Your task to perform on an android device: Search for 24"x36" picture frame on Home Depot. Image 0: 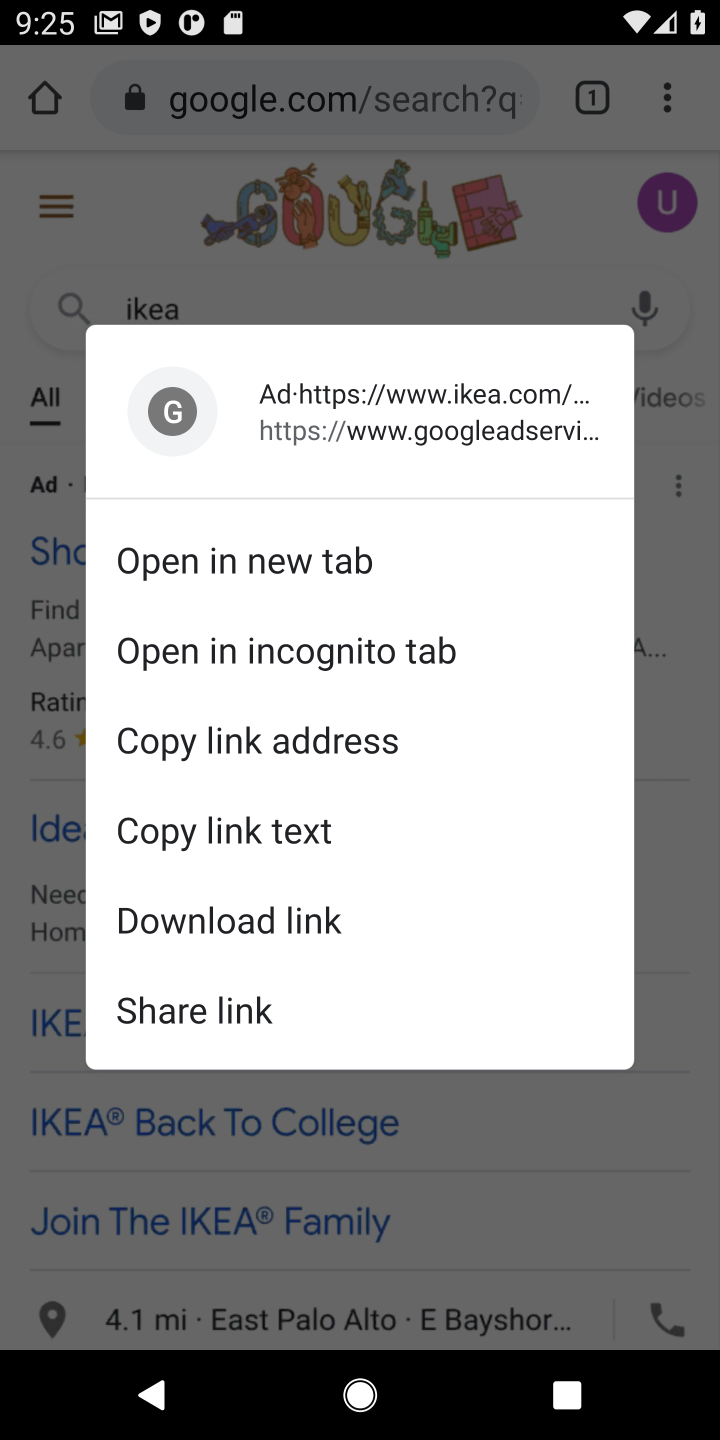
Step 0: press home button
Your task to perform on an android device: Search for 24"x36" picture frame on Home Depot. Image 1: 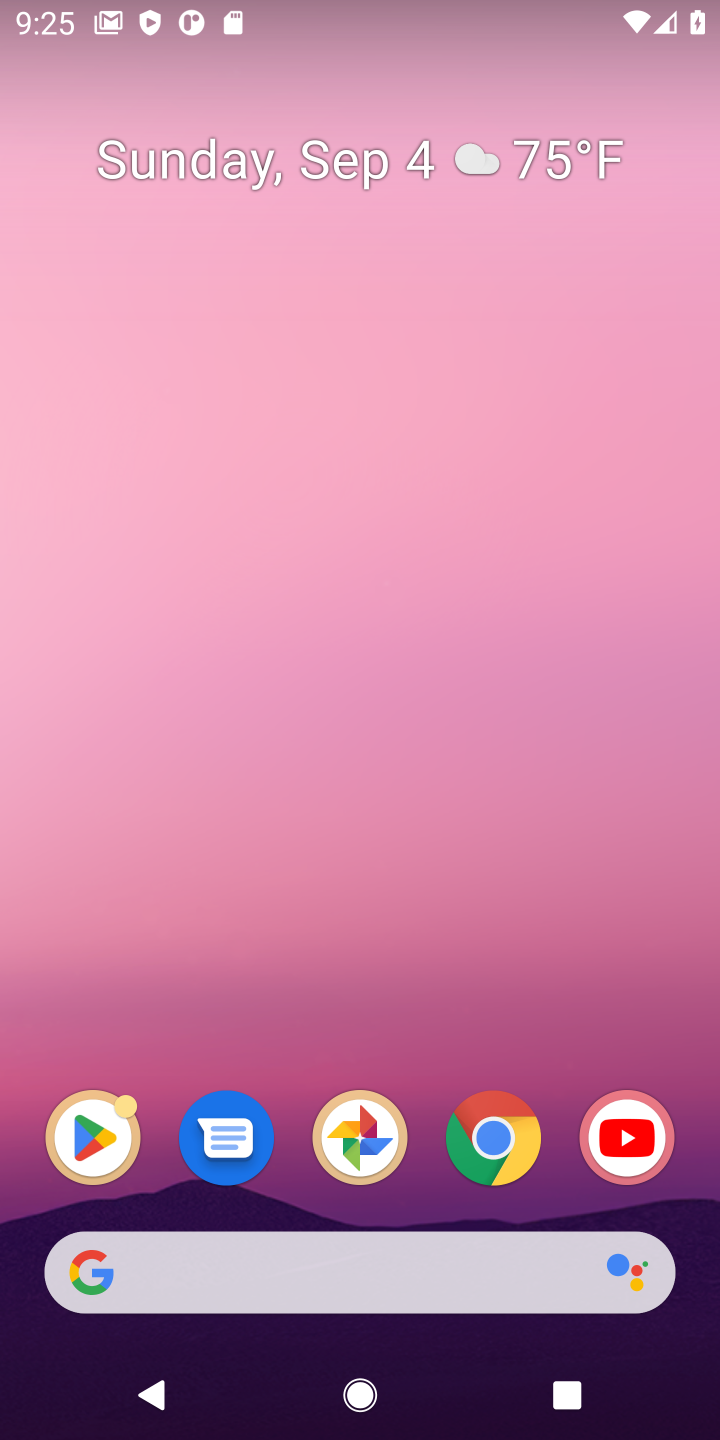
Step 1: click (498, 1137)
Your task to perform on an android device: Search for 24"x36" picture frame on Home Depot. Image 2: 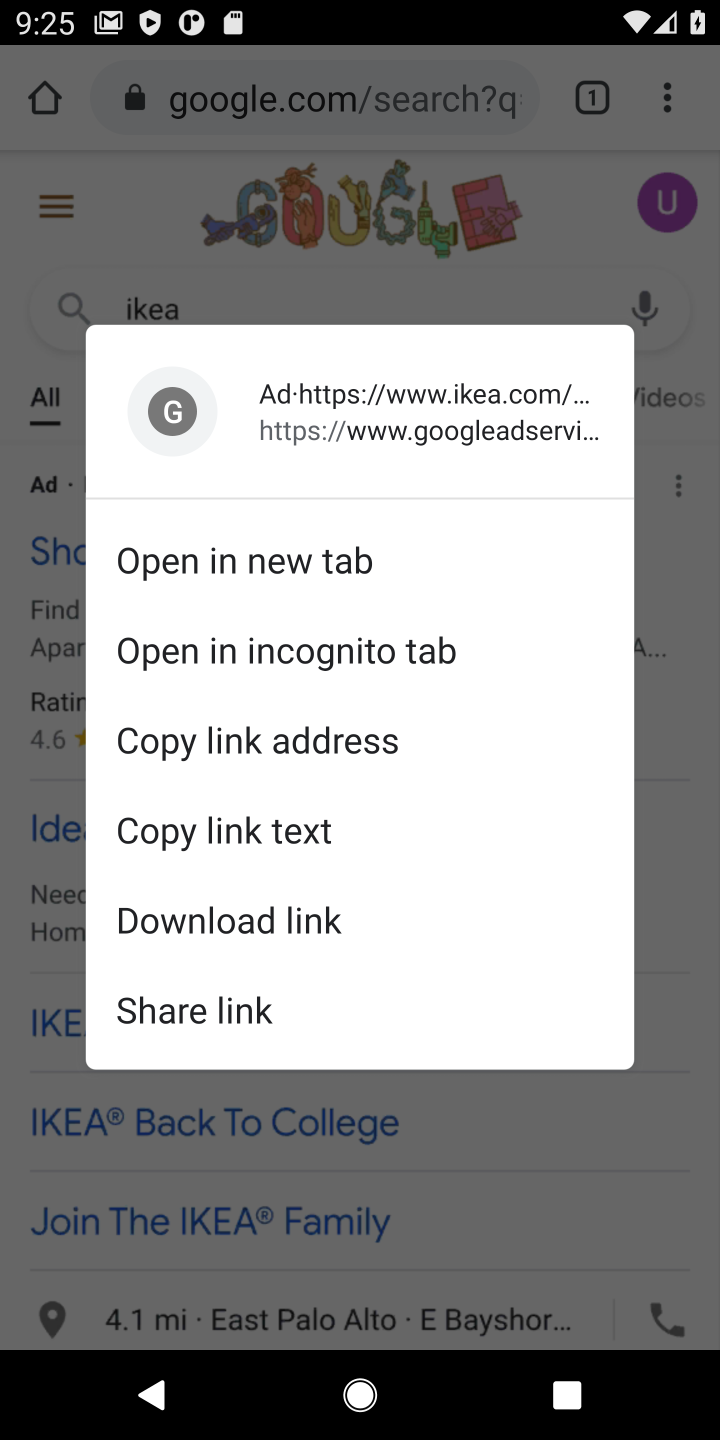
Step 2: press back button
Your task to perform on an android device: Search for 24"x36" picture frame on Home Depot. Image 3: 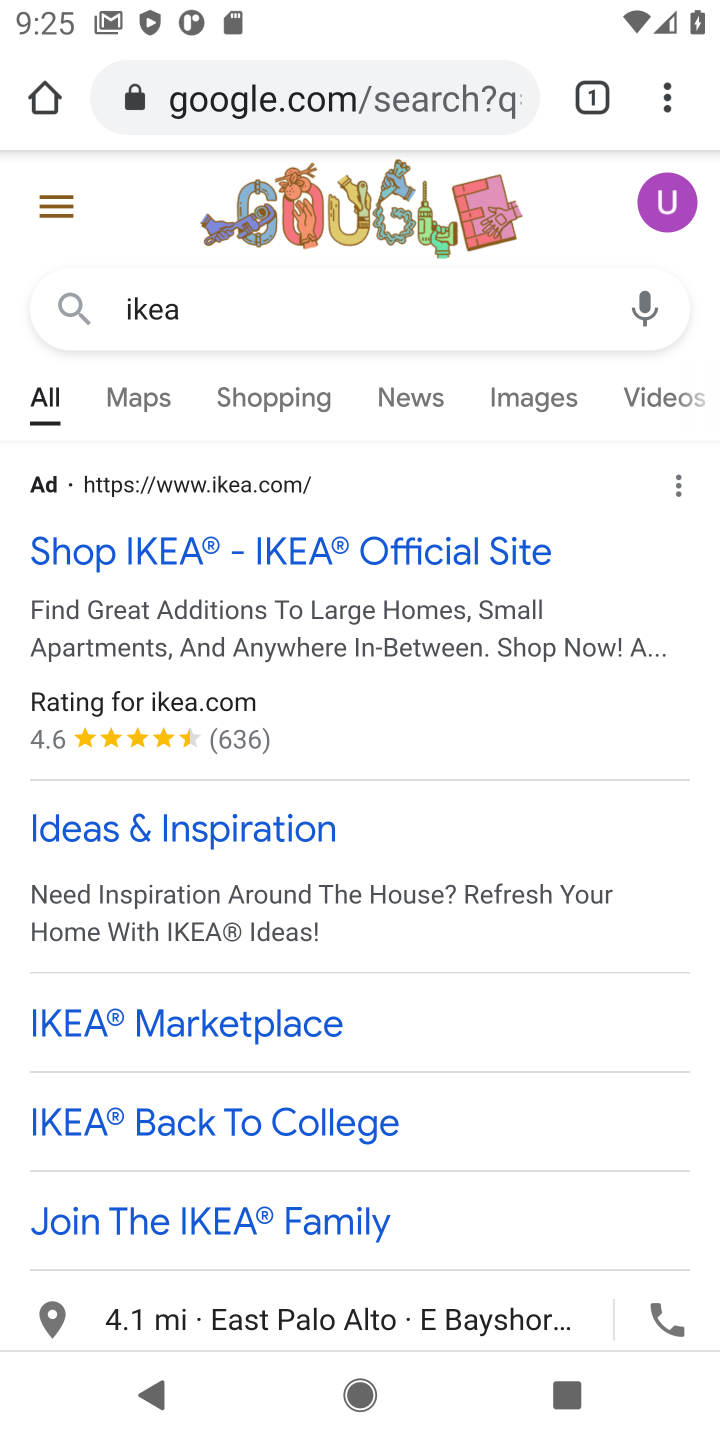
Step 3: click (385, 101)
Your task to perform on an android device: Search for 24"x36" picture frame on Home Depot. Image 4: 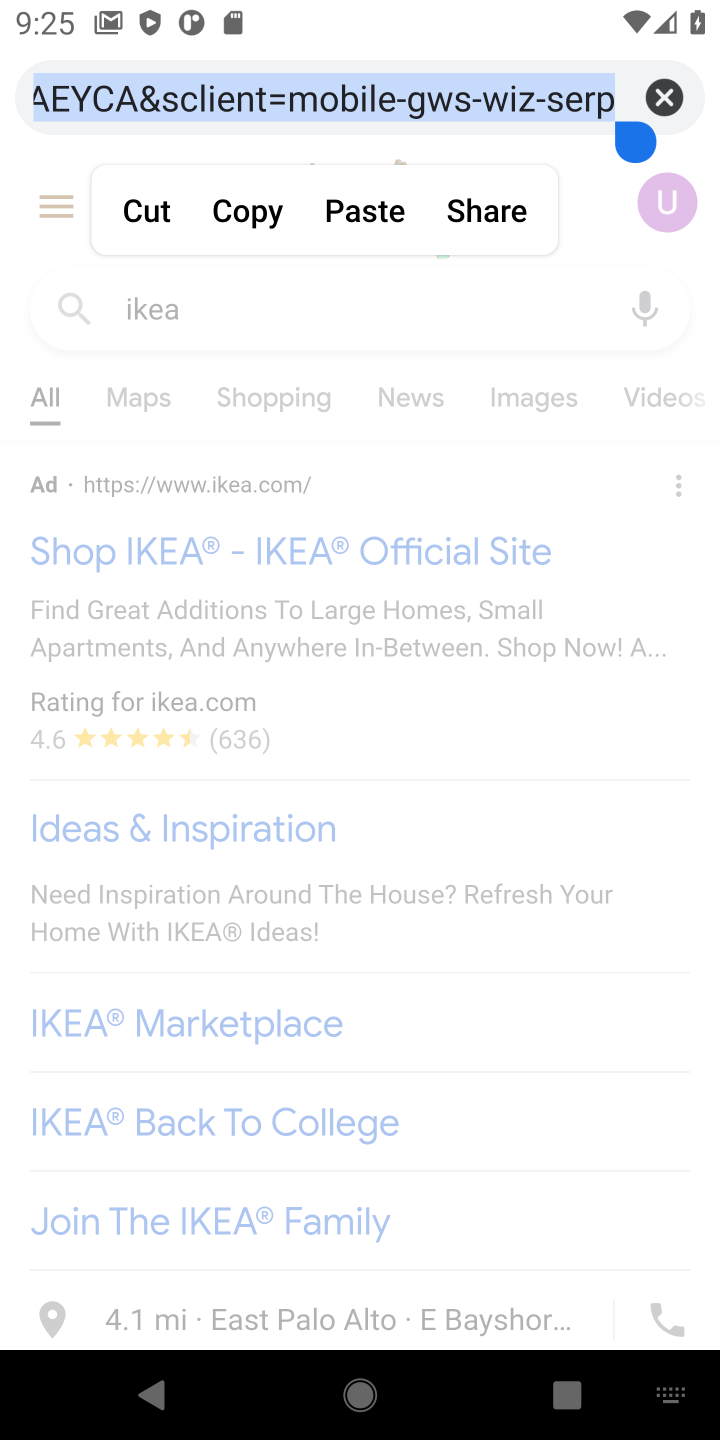
Step 4: type "24"x36" picture frame on Home Depot"
Your task to perform on an android device: Search for 24"x36" picture frame on Home Depot. Image 5: 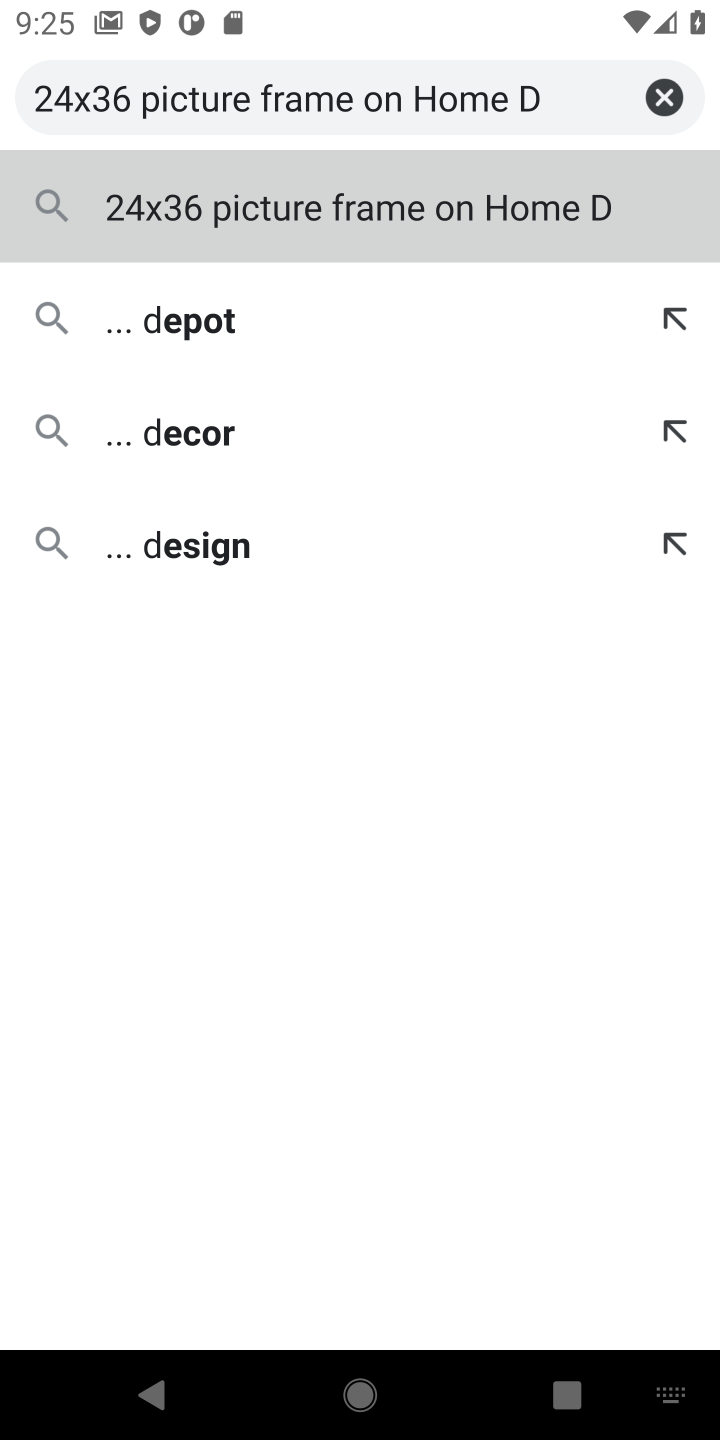
Step 5: type "24"x36" picture frame on Home Depot"
Your task to perform on an android device: Search for 24"x36" picture frame on Home Depot. Image 6: 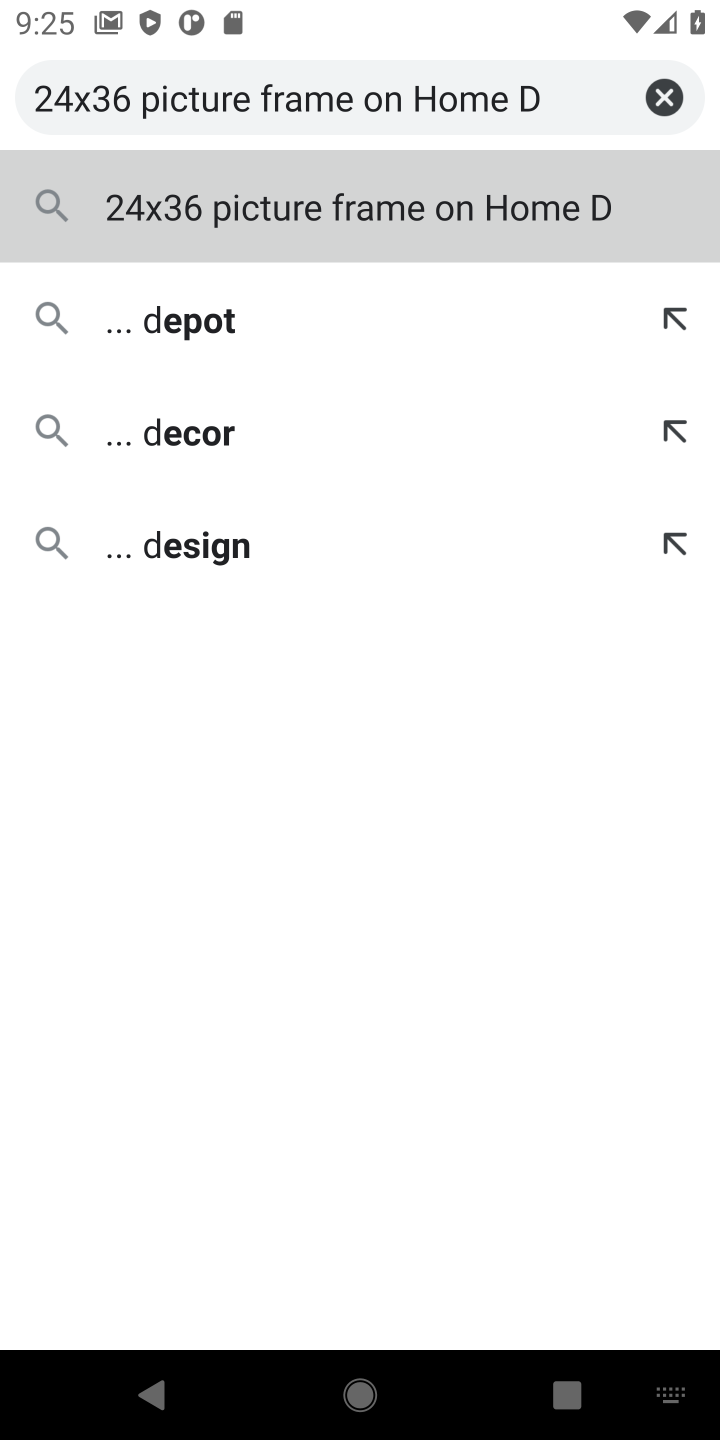
Step 6: click (499, 244)
Your task to perform on an android device: Search for 24"x36" picture frame on Home Depot. Image 7: 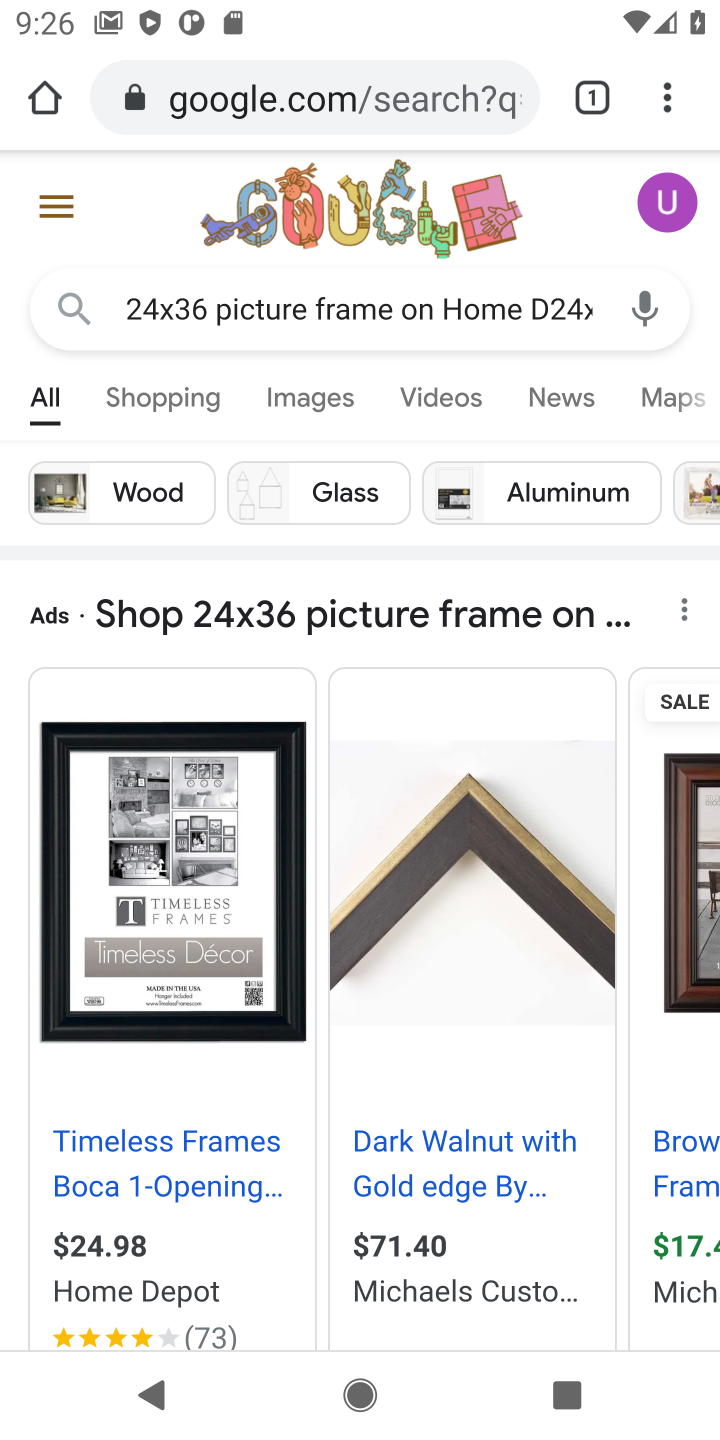
Step 7: drag from (362, 331) to (372, 261)
Your task to perform on an android device: Search for 24"x36" picture frame on Home Depot. Image 8: 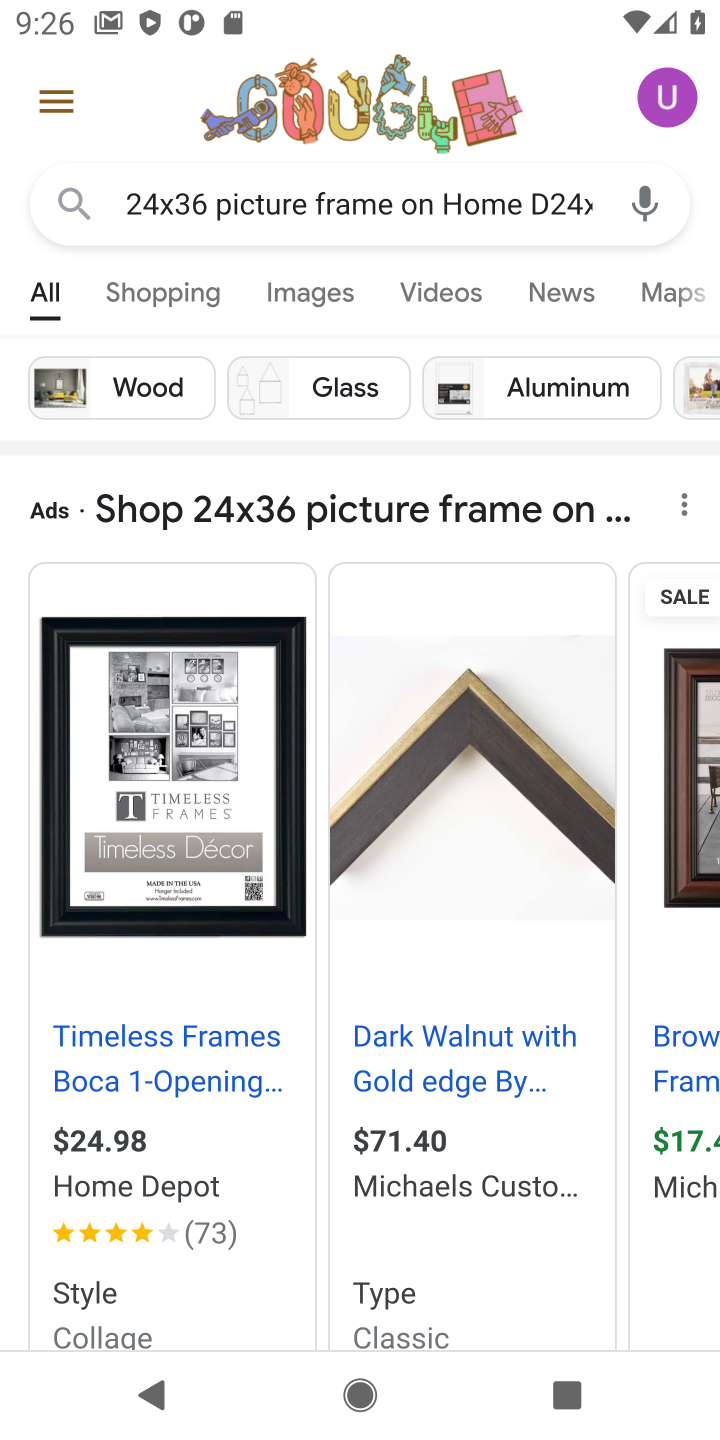
Step 8: drag from (321, 1299) to (290, 824)
Your task to perform on an android device: Search for 24"x36" picture frame on Home Depot. Image 9: 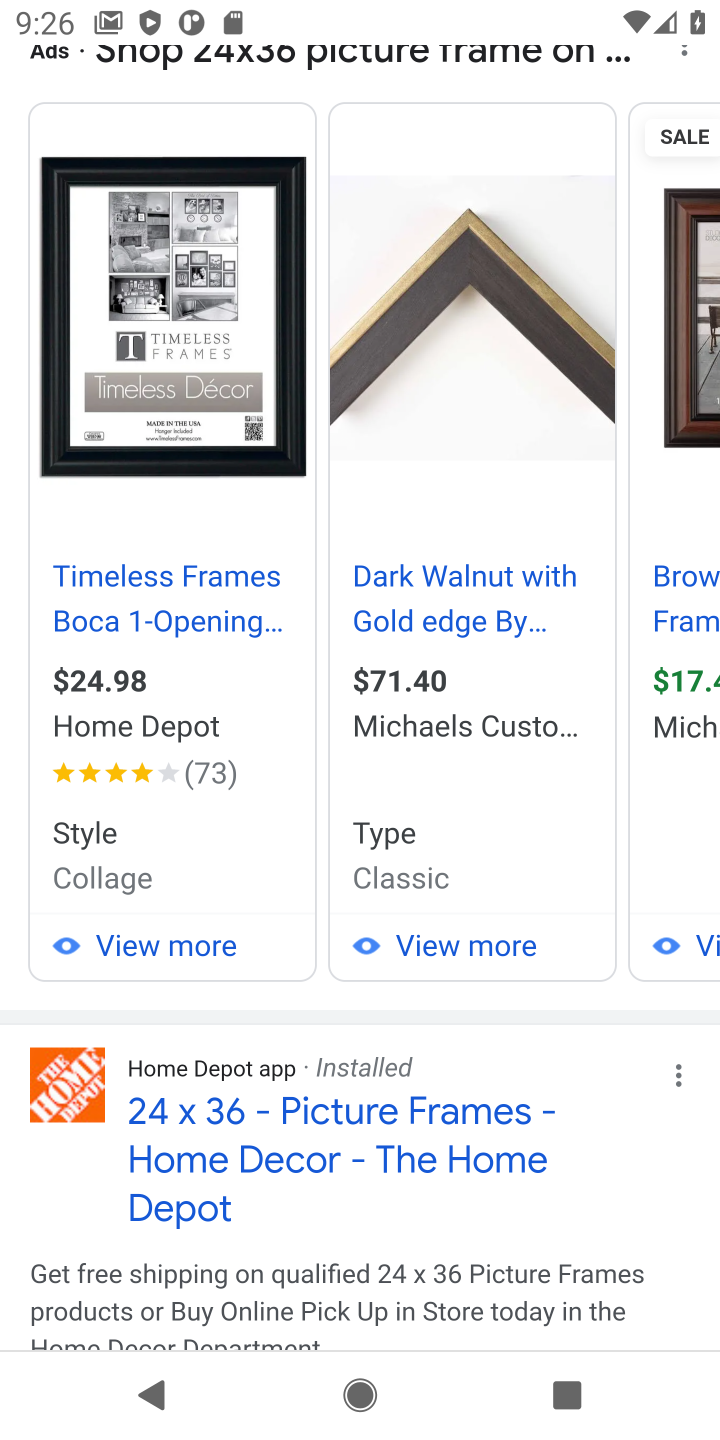
Step 9: click (378, 1149)
Your task to perform on an android device: Search for 24"x36" picture frame on Home Depot. Image 10: 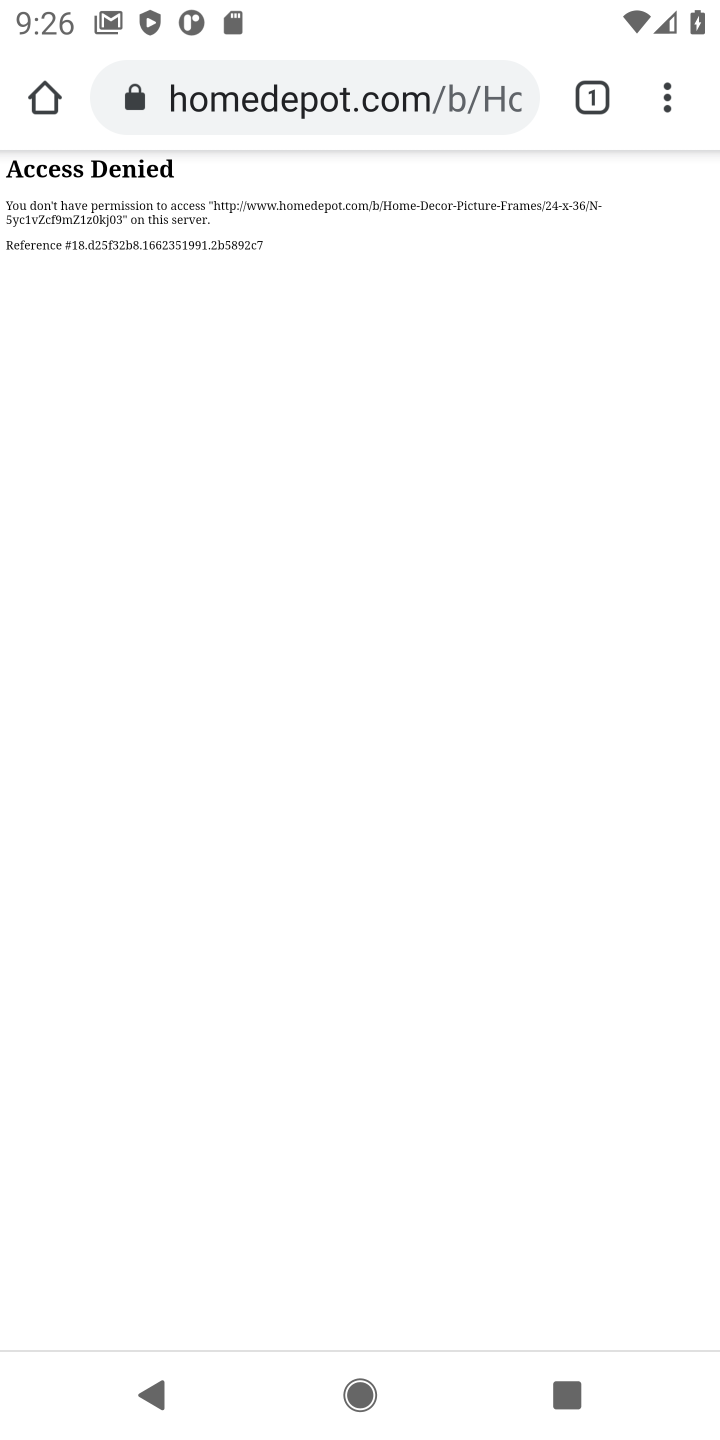
Step 10: task complete